Your task to perform on an android device: add a label to a message in the gmail app Image 0: 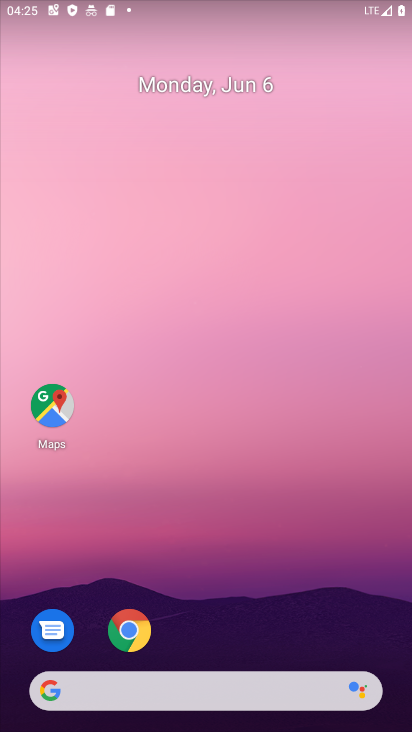
Step 0: press home button
Your task to perform on an android device: add a label to a message in the gmail app Image 1: 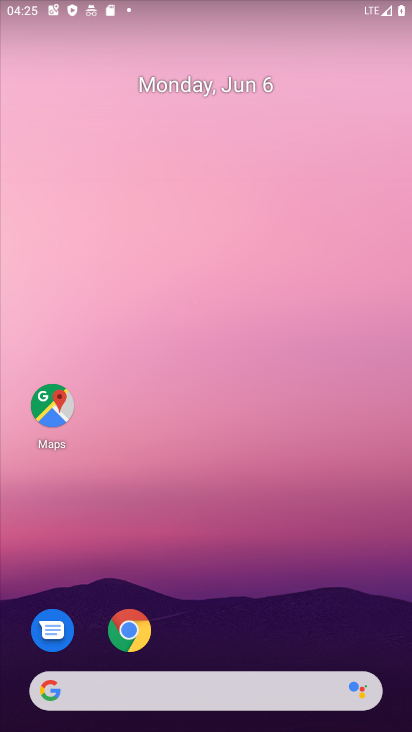
Step 1: drag from (289, 627) to (179, 98)
Your task to perform on an android device: add a label to a message in the gmail app Image 2: 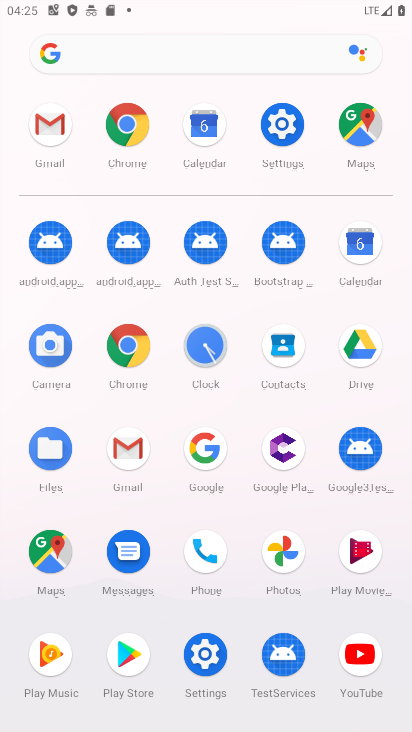
Step 2: click (43, 127)
Your task to perform on an android device: add a label to a message in the gmail app Image 3: 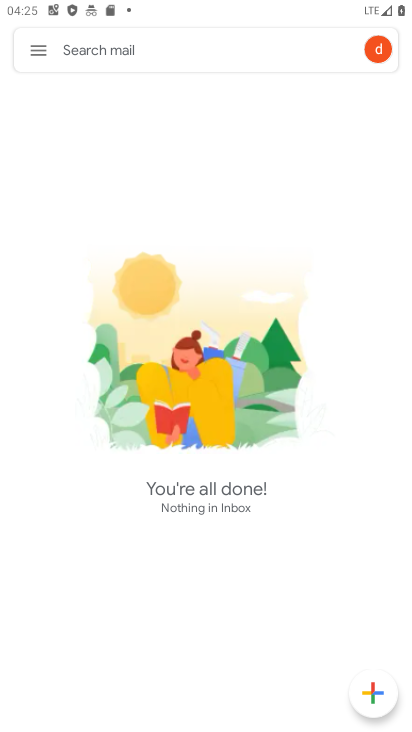
Step 3: task complete